Your task to perform on an android device: turn notification dots on Image 0: 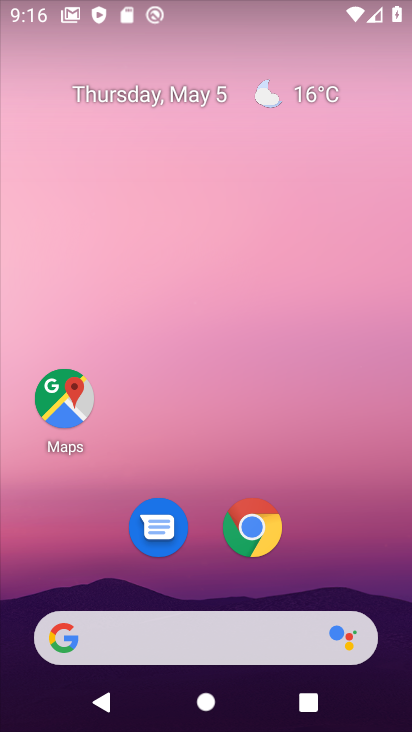
Step 0: drag from (206, 584) to (216, 88)
Your task to perform on an android device: turn notification dots on Image 1: 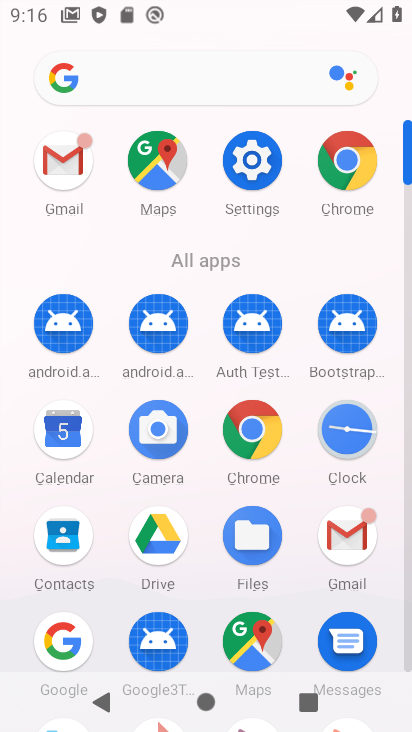
Step 1: click (249, 152)
Your task to perform on an android device: turn notification dots on Image 2: 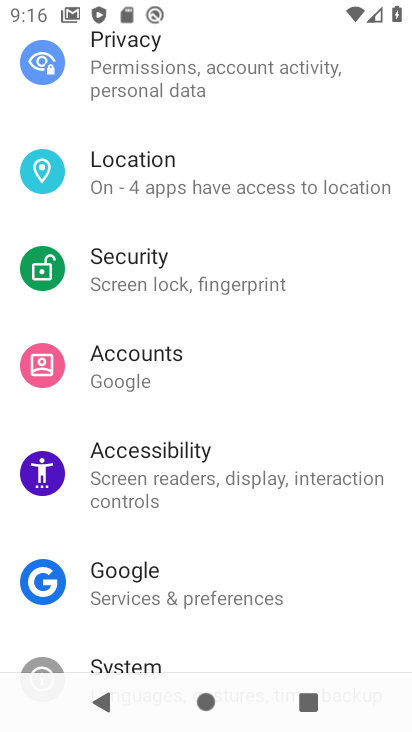
Step 2: drag from (171, 123) to (171, 703)
Your task to perform on an android device: turn notification dots on Image 3: 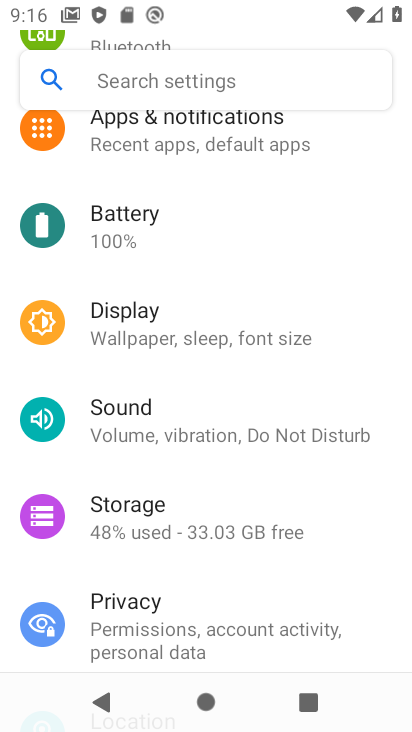
Step 3: click (227, 141)
Your task to perform on an android device: turn notification dots on Image 4: 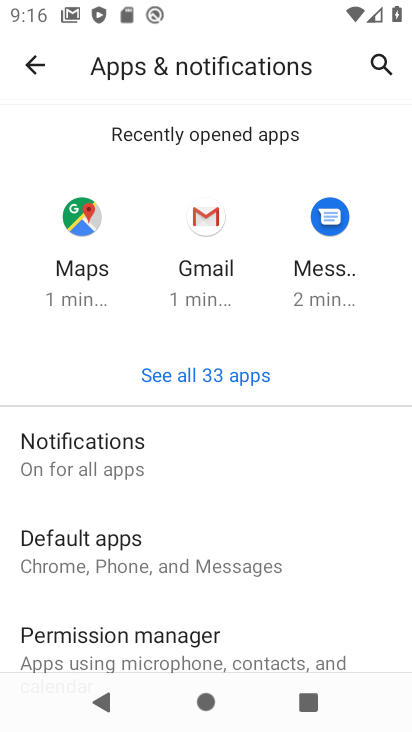
Step 4: click (166, 454)
Your task to perform on an android device: turn notification dots on Image 5: 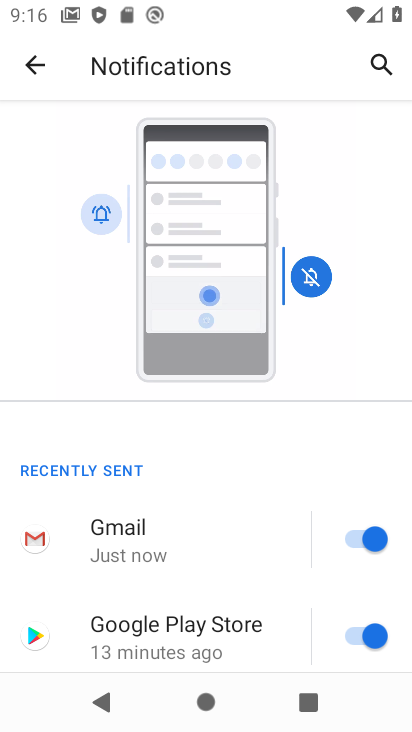
Step 5: drag from (281, 638) to (309, 143)
Your task to perform on an android device: turn notification dots on Image 6: 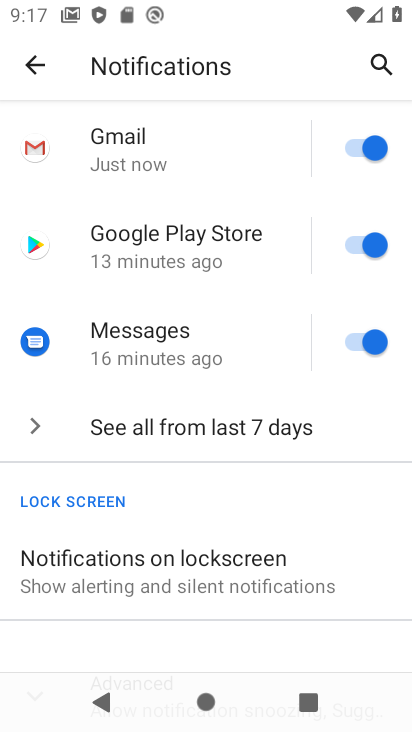
Step 6: drag from (247, 617) to (258, 126)
Your task to perform on an android device: turn notification dots on Image 7: 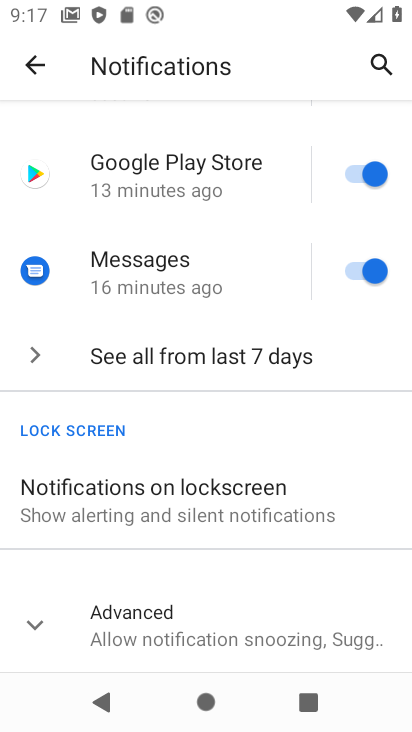
Step 7: click (32, 619)
Your task to perform on an android device: turn notification dots on Image 8: 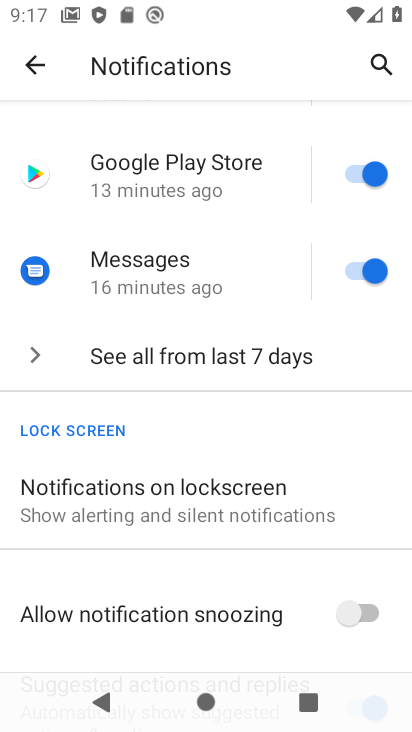
Step 8: task complete